Your task to perform on an android device: Open Chrome and go to the settings page Image 0: 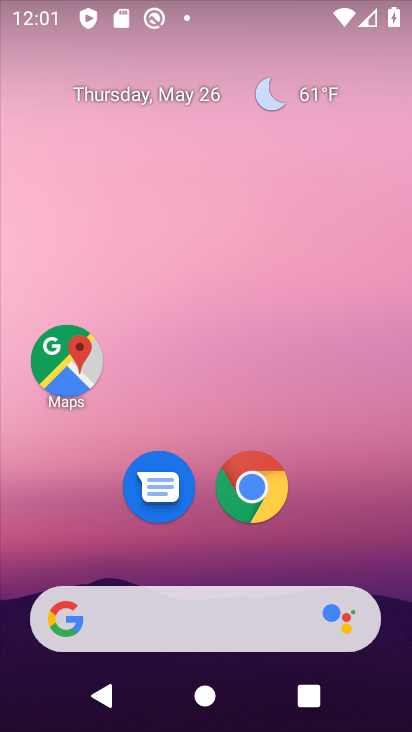
Step 0: drag from (250, 675) to (137, 187)
Your task to perform on an android device: Open Chrome and go to the settings page Image 1: 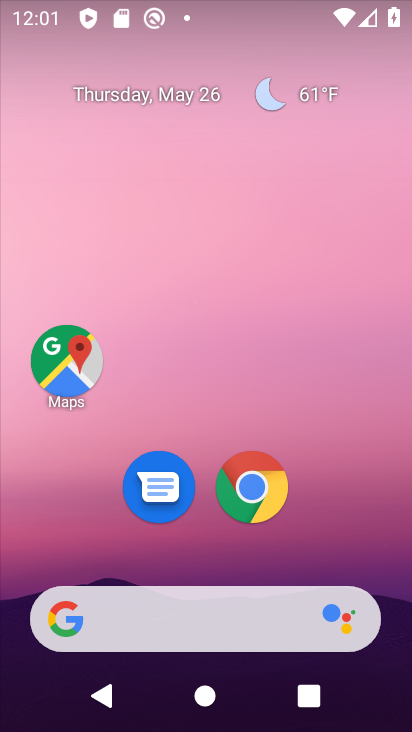
Step 1: drag from (306, 637) to (255, 140)
Your task to perform on an android device: Open Chrome and go to the settings page Image 2: 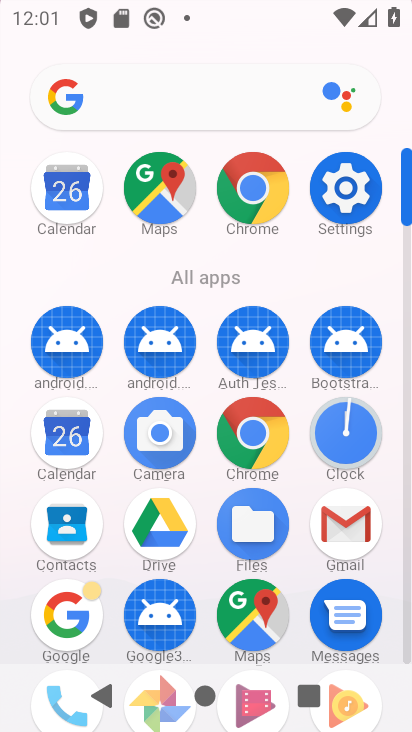
Step 2: drag from (291, 449) to (166, 71)
Your task to perform on an android device: Open Chrome and go to the settings page Image 3: 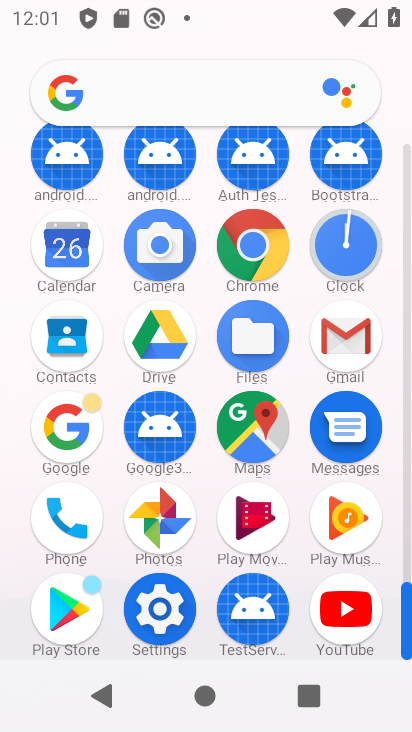
Step 3: click (258, 432)
Your task to perform on an android device: Open Chrome and go to the settings page Image 4: 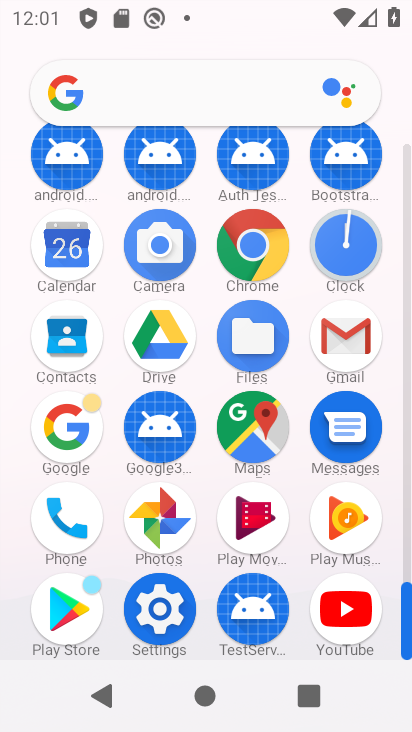
Step 4: click (258, 432)
Your task to perform on an android device: Open Chrome and go to the settings page Image 5: 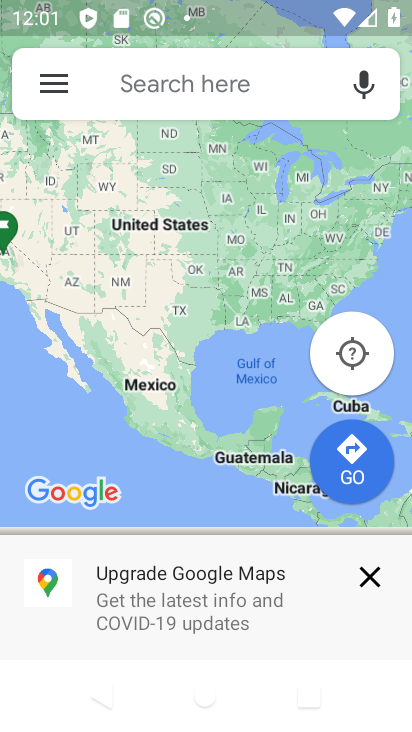
Step 5: press back button
Your task to perform on an android device: Open Chrome and go to the settings page Image 6: 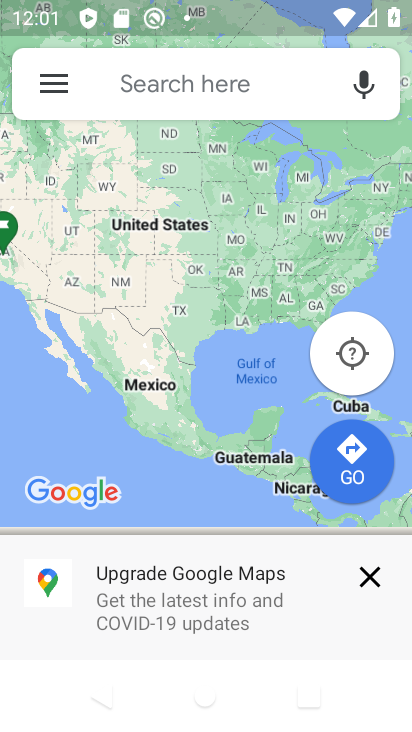
Step 6: press back button
Your task to perform on an android device: Open Chrome and go to the settings page Image 7: 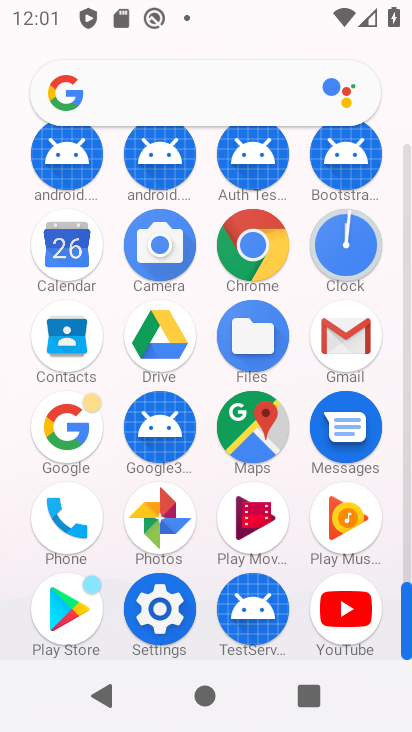
Step 7: press back button
Your task to perform on an android device: Open Chrome and go to the settings page Image 8: 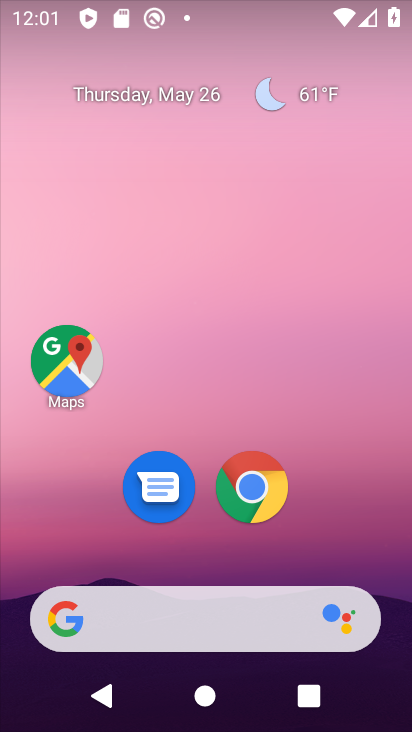
Step 8: drag from (199, 675) to (263, 226)
Your task to perform on an android device: Open Chrome and go to the settings page Image 9: 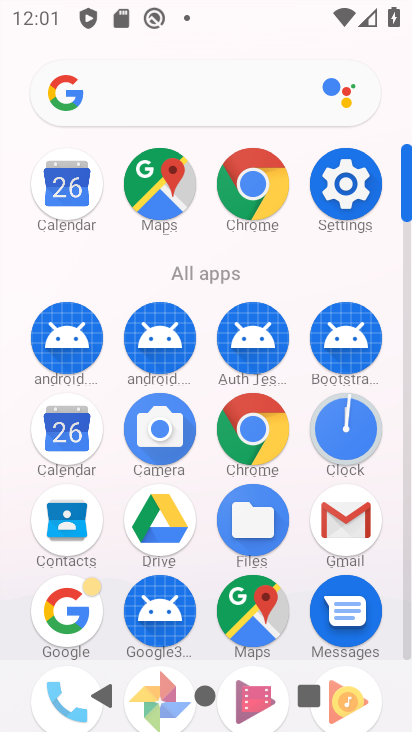
Step 9: click (258, 188)
Your task to perform on an android device: Open Chrome and go to the settings page Image 10: 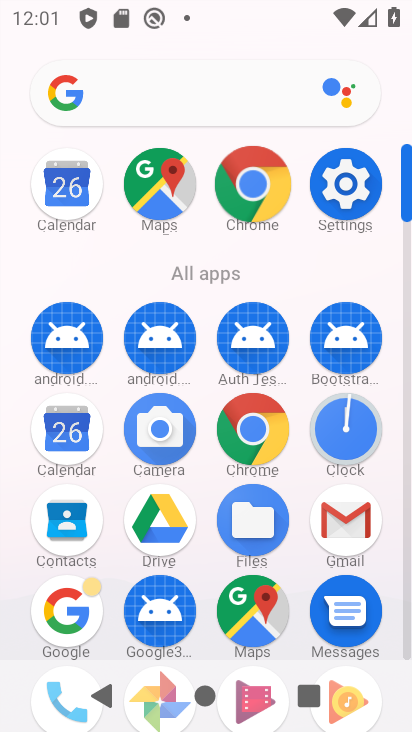
Step 10: click (258, 188)
Your task to perform on an android device: Open Chrome and go to the settings page Image 11: 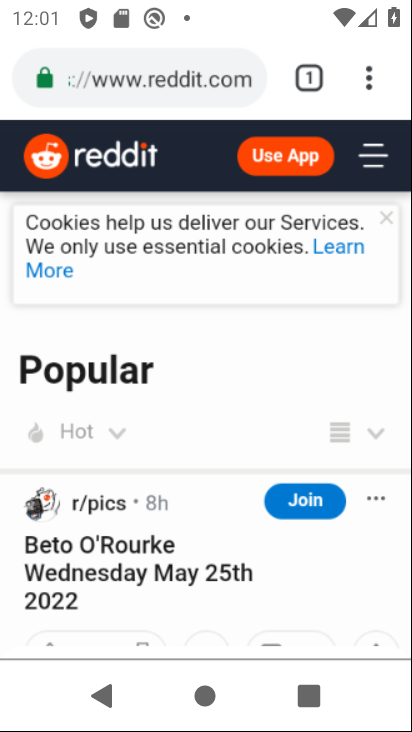
Step 11: click (251, 182)
Your task to perform on an android device: Open Chrome and go to the settings page Image 12: 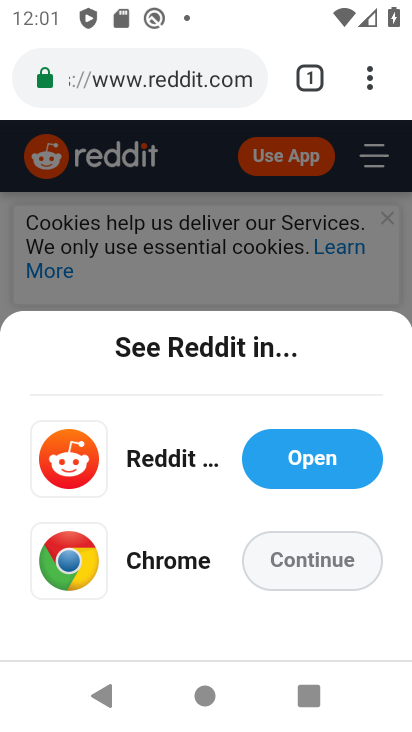
Step 12: drag from (372, 86) to (70, 567)
Your task to perform on an android device: Open Chrome and go to the settings page Image 13: 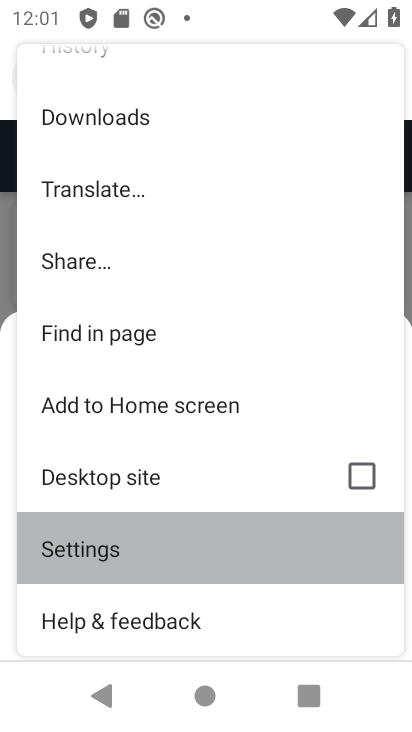
Step 13: click (71, 567)
Your task to perform on an android device: Open Chrome and go to the settings page Image 14: 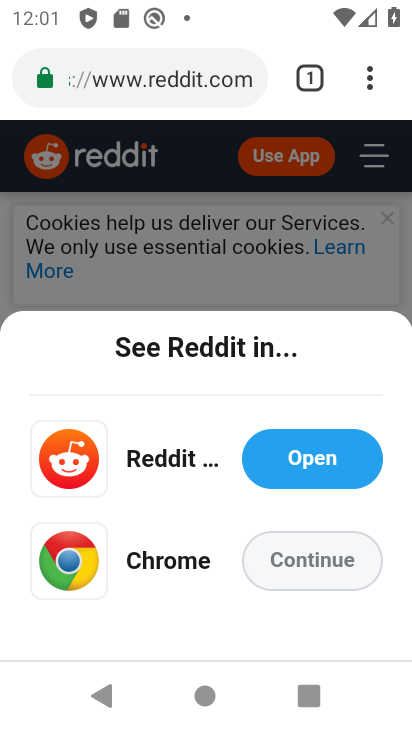
Step 14: click (75, 562)
Your task to perform on an android device: Open Chrome and go to the settings page Image 15: 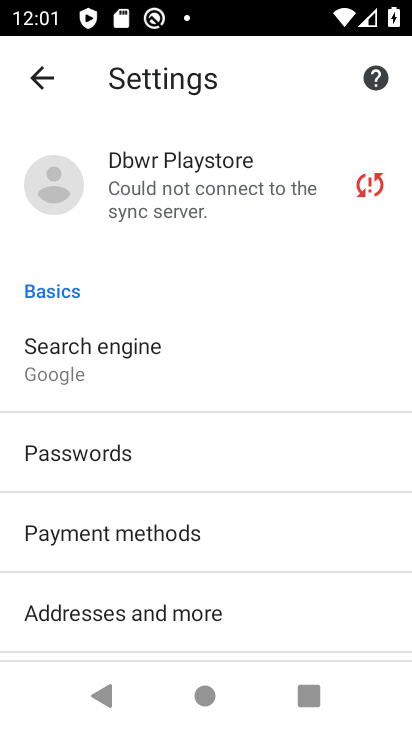
Step 15: task complete